Your task to perform on an android device: open app "Life360: Find Family & Friends" (install if not already installed) and go to login screen Image 0: 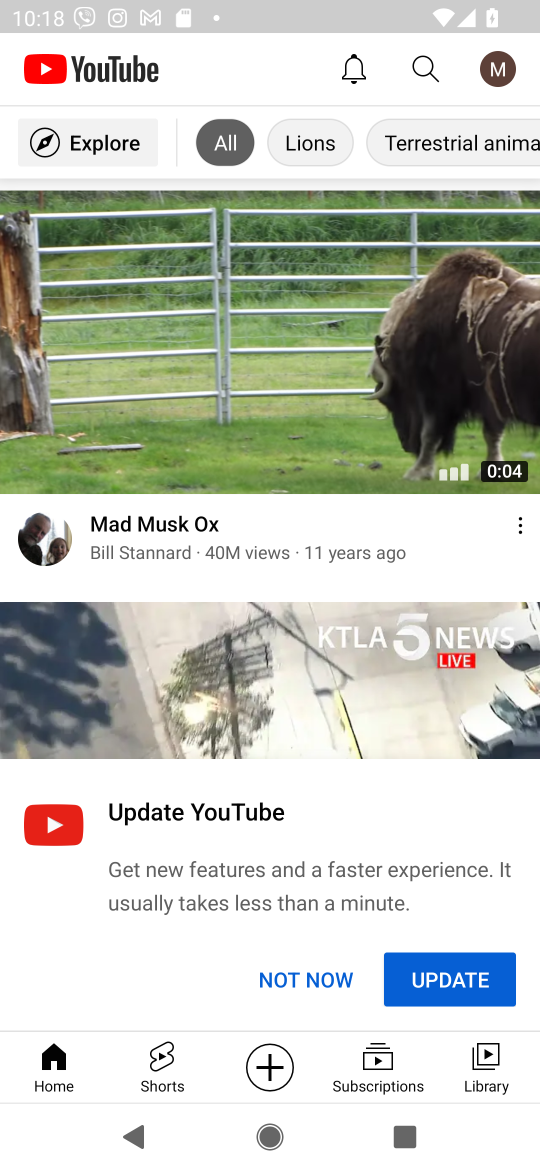
Step 0: press home button
Your task to perform on an android device: open app "Life360: Find Family & Friends" (install if not already installed) and go to login screen Image 1: 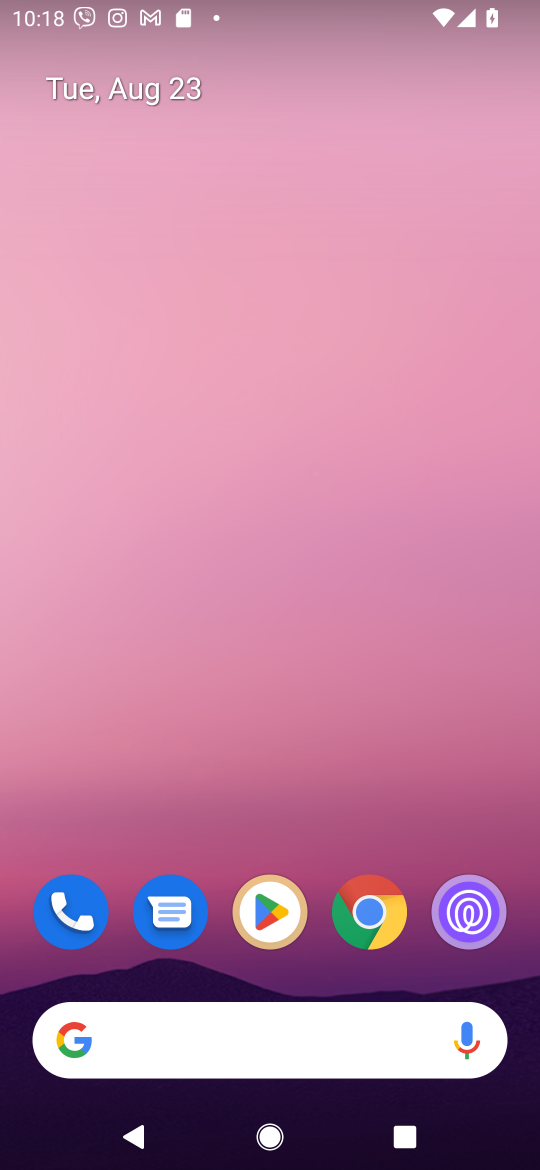
Step 1: click (267, 906)
Your task to perform on an android device: open app "Life360: Find Family & Friends" (install if not already installed) and go to login screen Image 2: 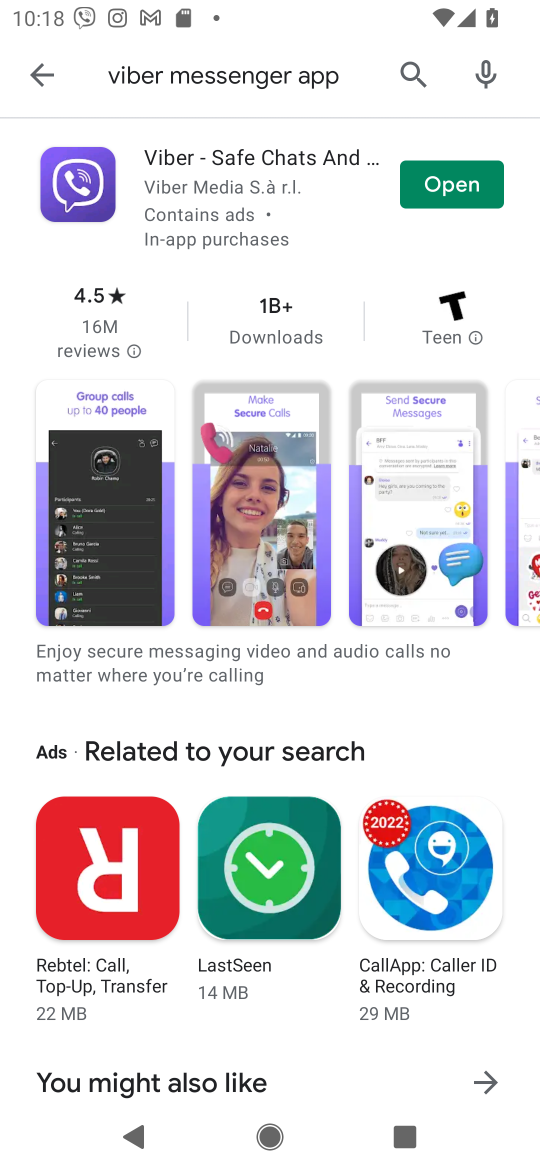
Step 2: type "Life360: Find Family & Friends"
Your task to perform on an android device: open app "Life360: Find Family & Friends" (install if not already installed) and go to login screen Image 3: 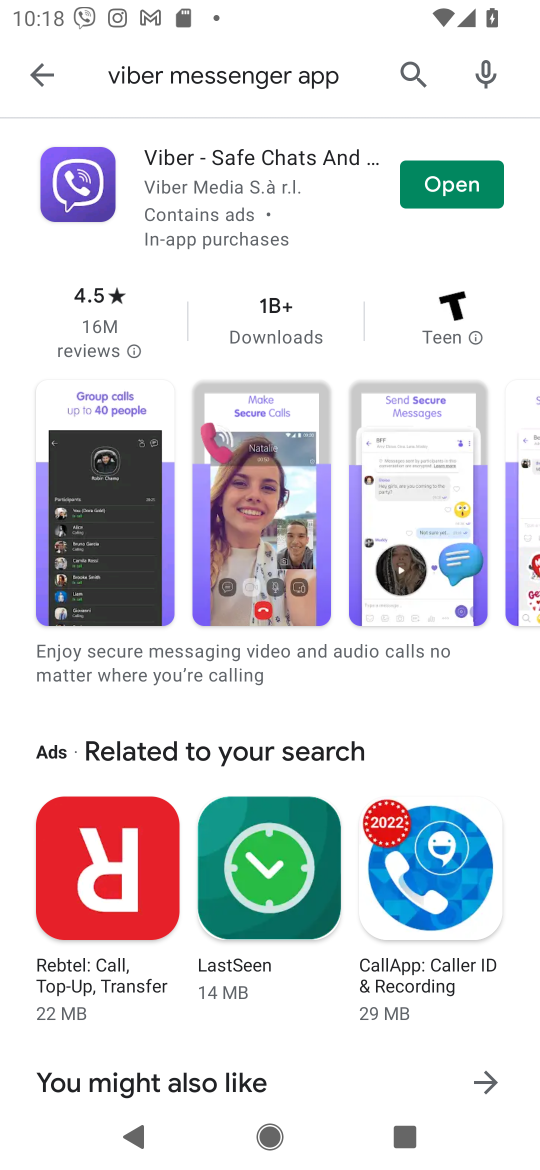
Step 3: click (408, 73)
Your task to perform on an android device: open app "Life360: Find Family & Friends" (install if not already installed) and go to login screen Image 4: 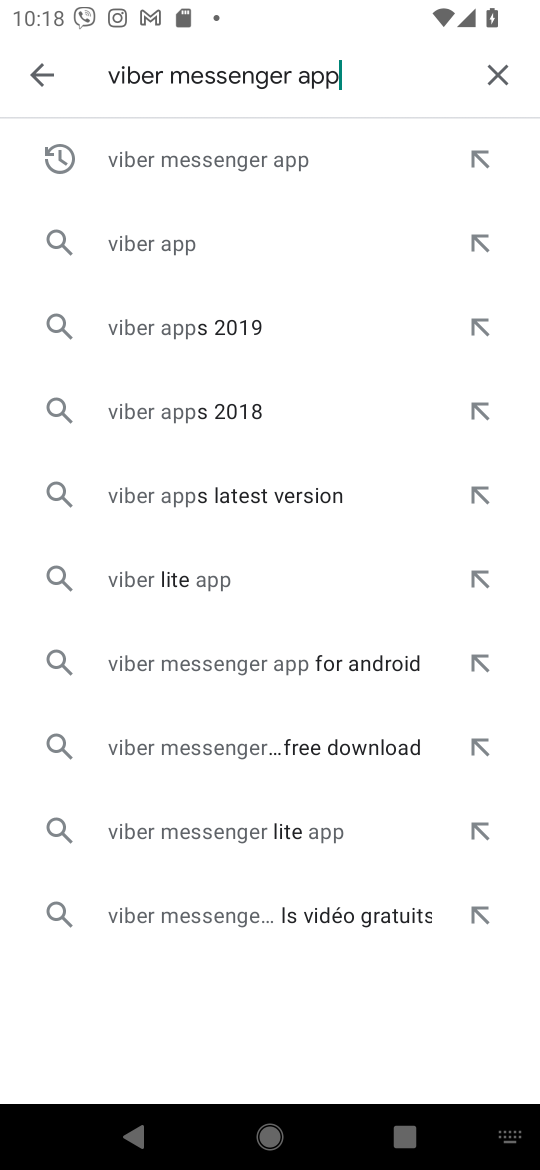
Step 4: click (498, 71)
Your task to perform on an android device: open app "Life360: Find Family & Friends" (install if not already installed) and go to login screen Image 5: 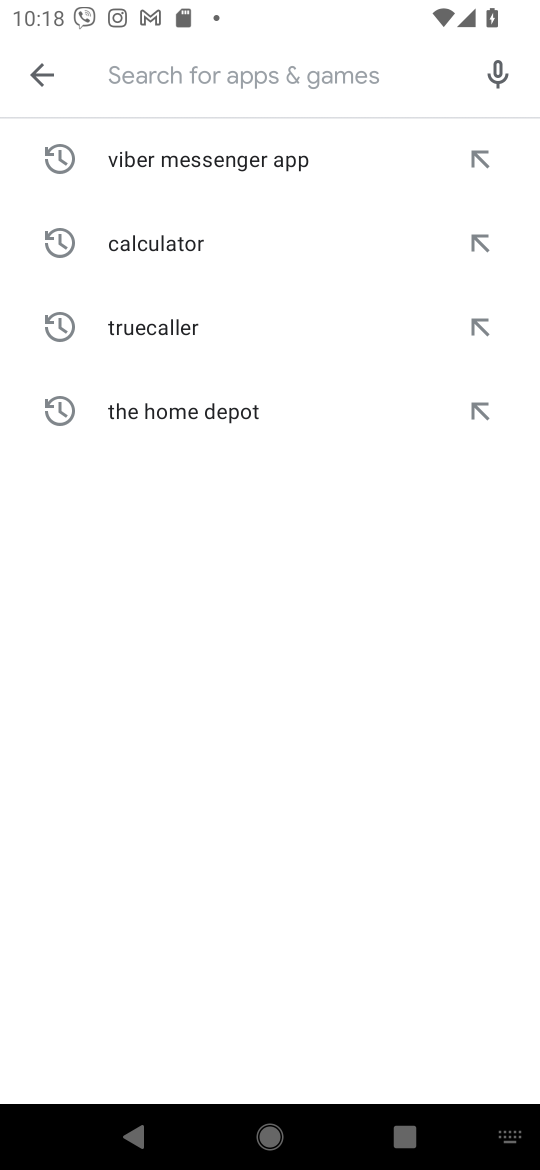
Step 5: type "Life360: Find Family & Friend"
Your task to perform on an android device: open app "Life360: Find Family & Friends" (install if not already installed) and go to login screen Image 6: 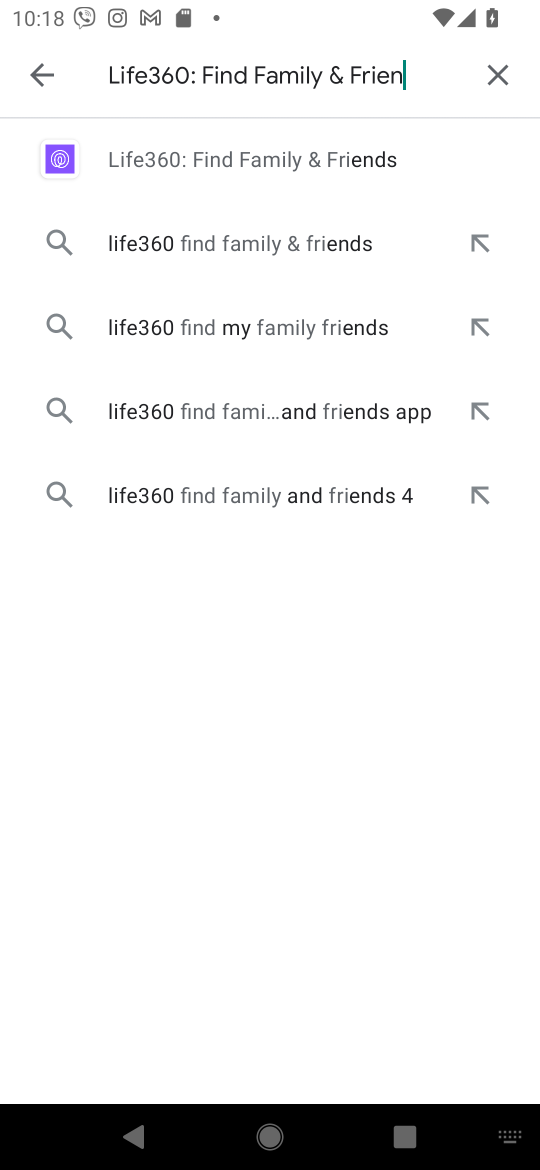
Step 6: type ""
Your task to perform on an android device: open app "Life360: Find Family & Friends" (install if not already installed) and go to login screen Image 7: 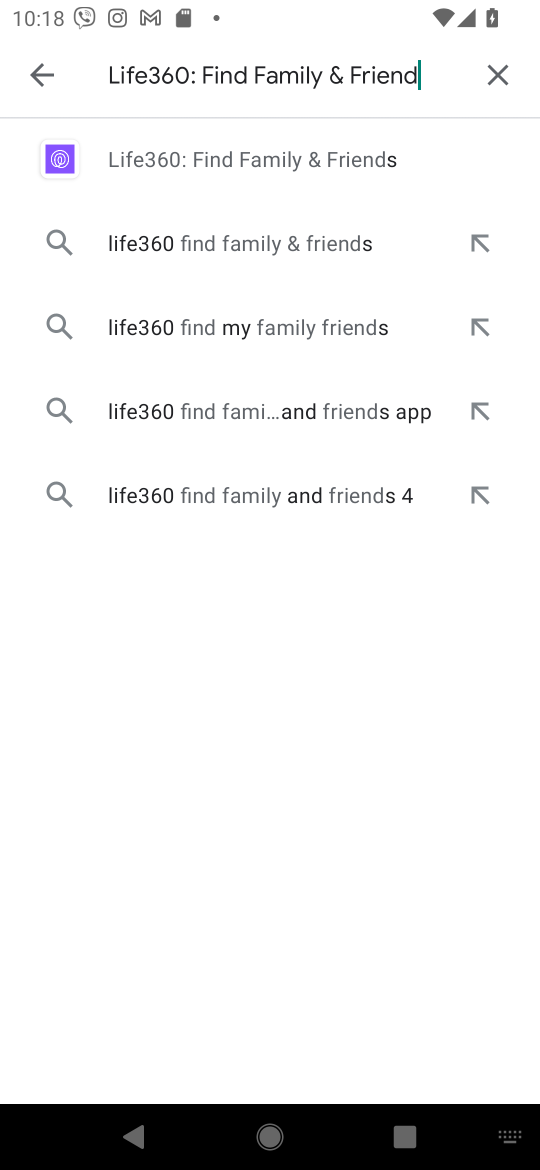
Step 7: click (280, 163)
Your task to perform on an android device: open app "Life360: Find Family & Friends" (install if not already installed) and go to login screen Image 8: 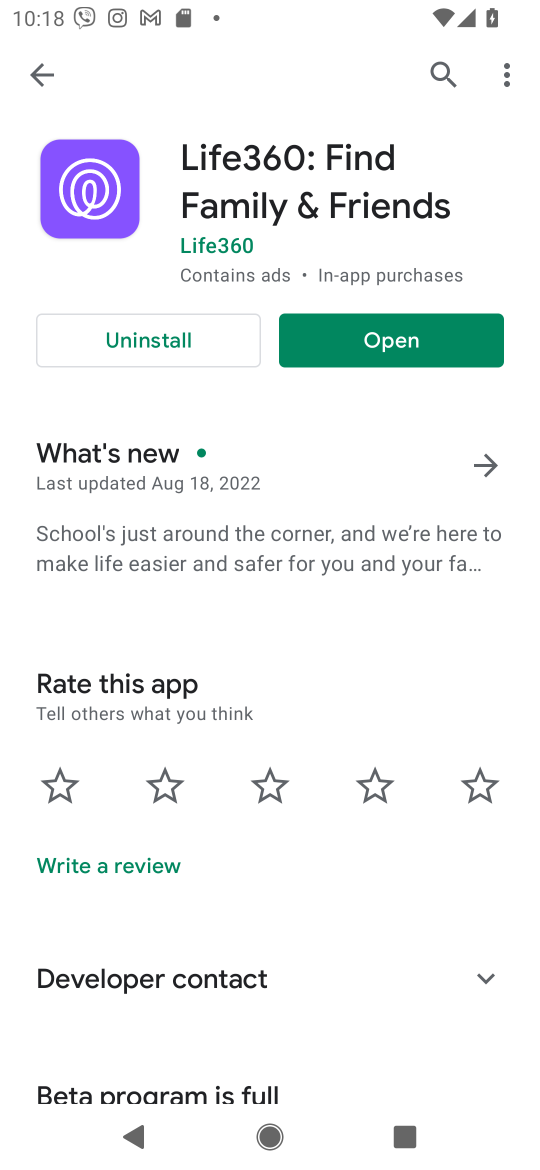
Step 8: click (385, 347)
Your task to perform on an android device: open app "Life360: Find Family & Friends" (install if not already installed) and go to login screen Image 9: 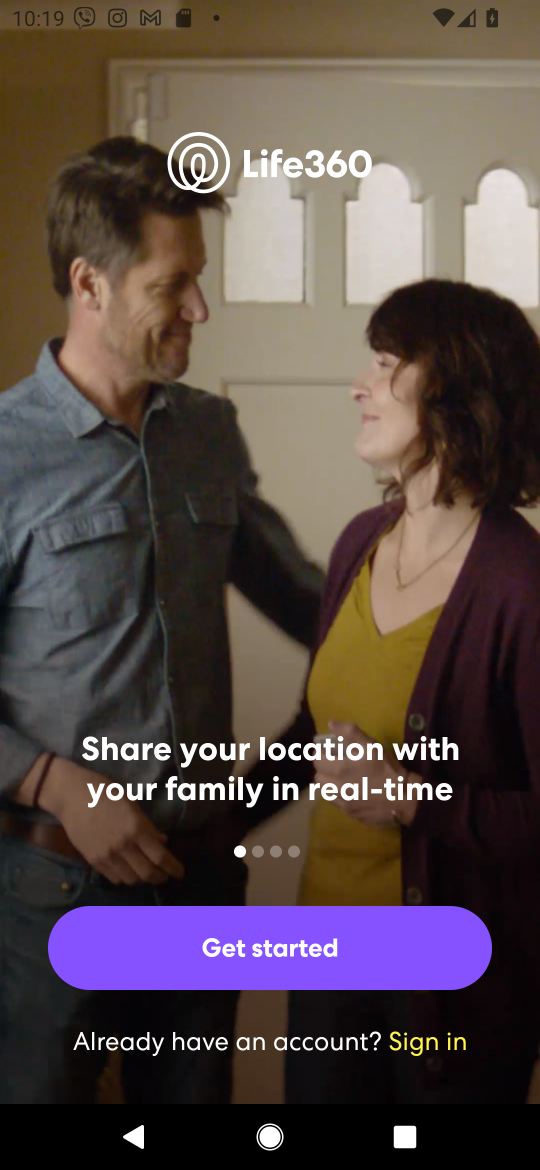
Step 9: click (413, 1040)
Your task to perform on an android device: open app "Life360: Find Family & Friends" (install if not already installed) and go to login screen Image 10: 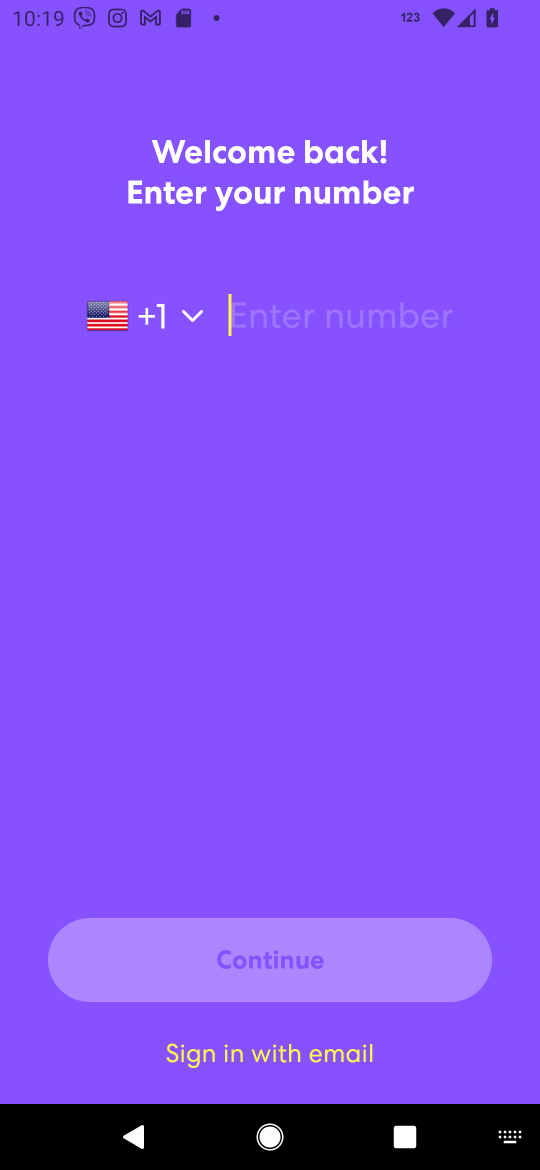
Step 10: task complete